Your task to perform on an android device: turn off location Image 0: 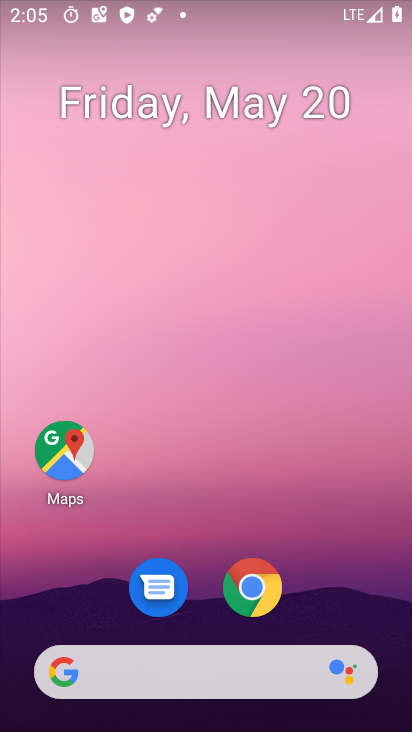
Step 0: drag from (312, 559) to (288, 201)
Your task to perform on an android device: turn off location Image 1: 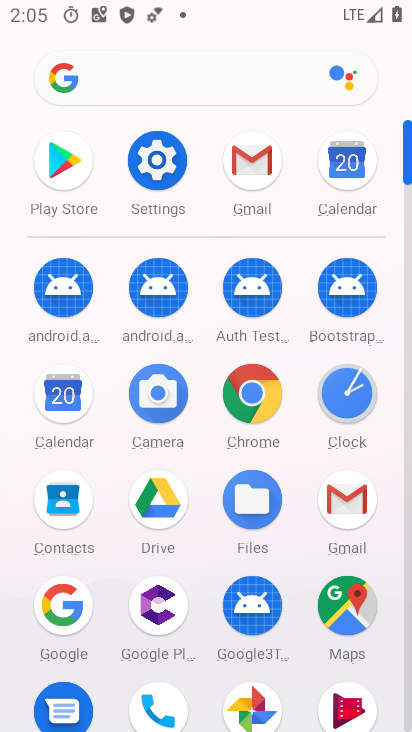
Step 1: click (143, 154)
Your task to perform on an android device: turn off location Image 2: 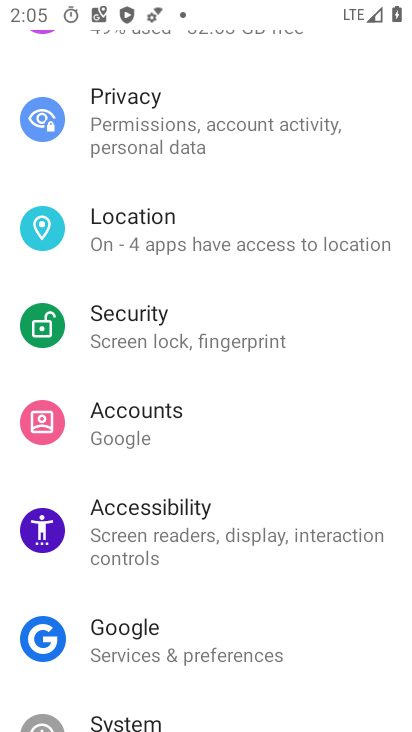
Step 2: click (189, 263)
Your task to perform on an android device: turn off location Image 3: 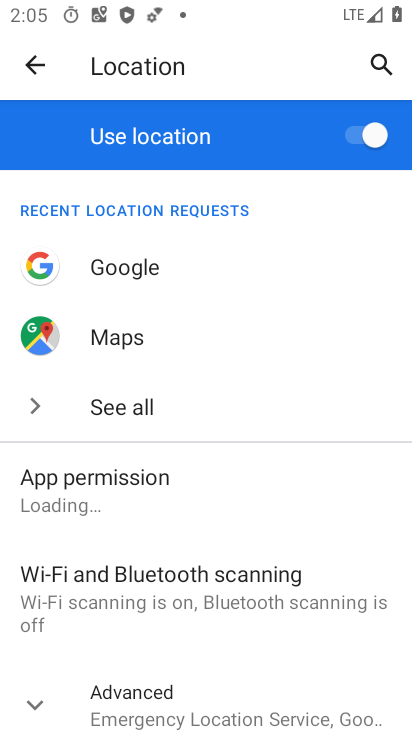
Step 3: click (355, 139)
Your task to perform on an android device: turn off location Image 4: 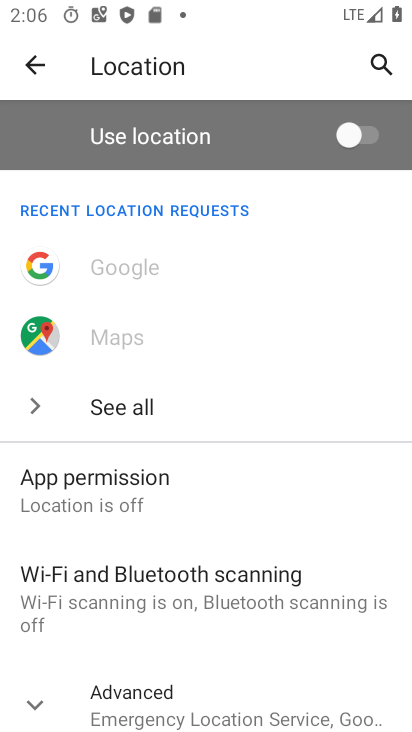
Step 4: task complete